Your task to perform on an android device: Open internet settings Image 0: 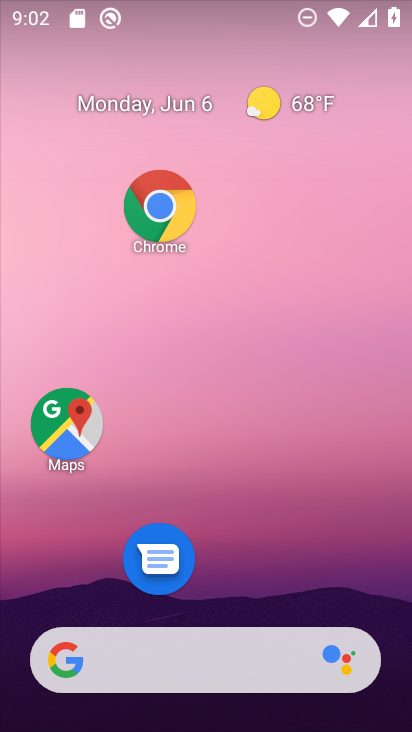
Step 0: drag from (260, 670) to (282, 335)
Your task to perform on an android device: Open internet settings Image 1: 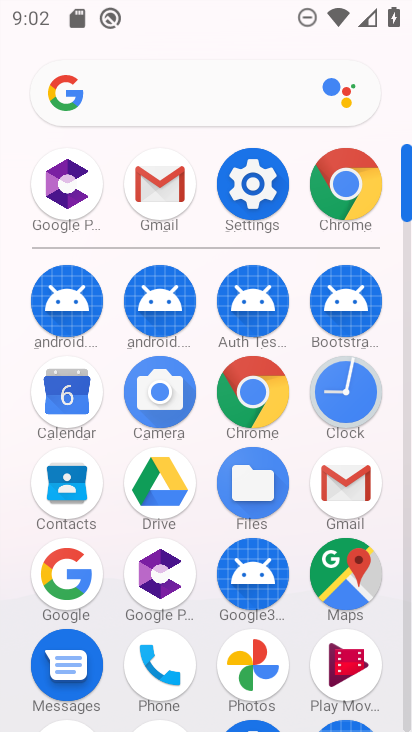
Step 1: click (254, 182)
Your task to perform on an android device: Open internet settings Image 2: 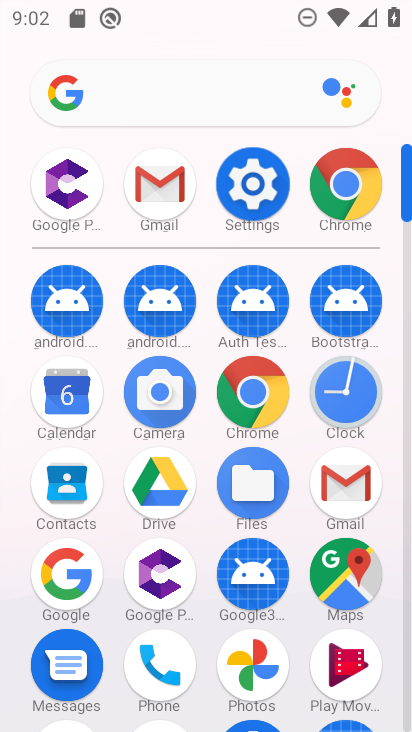
Step 2: click (254, 182)
Your task to perform on an android device: Open internet settings Image 3: 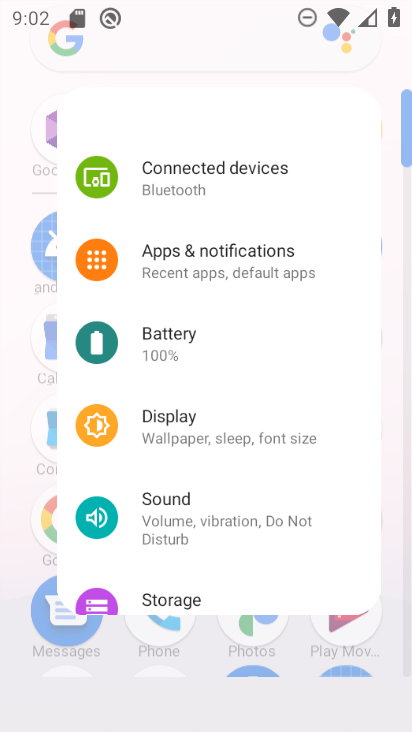
Step 3: click (229, 182)
Your task to perform on an android device: Open internet settings Image 4: 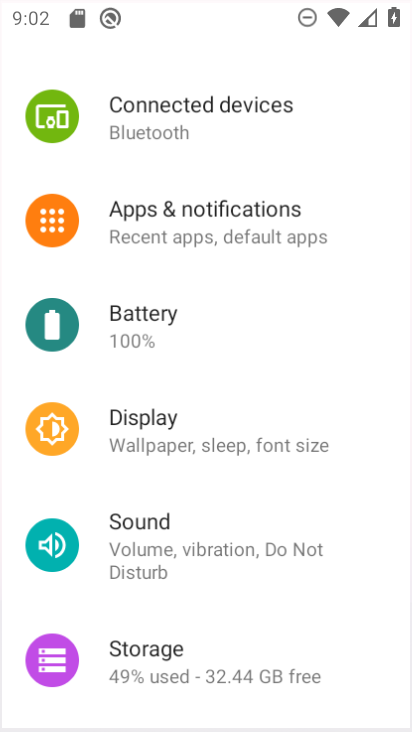
Step 4: click (229, 182)
Your task to perform on an android device: Open internet settings Image 5: 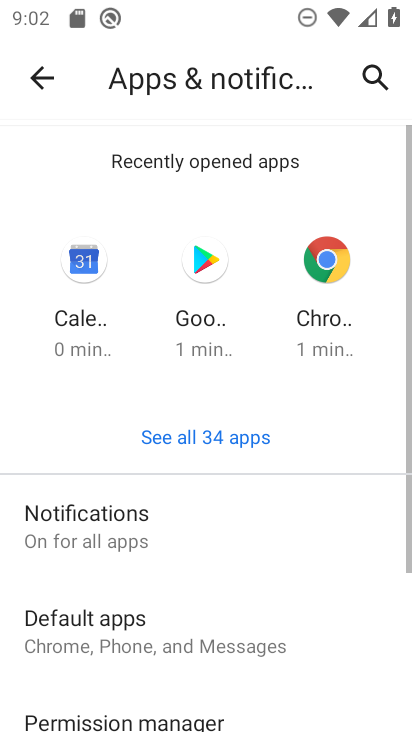
Step 5: click (42, 75)
Your task to perform on an android device: Open internet settings Image 6: 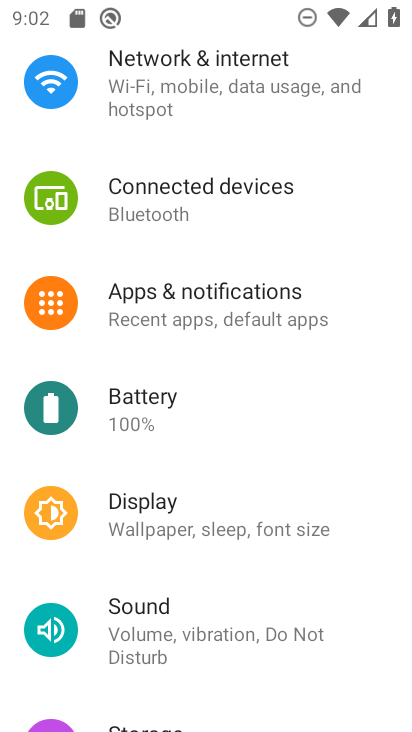
Step 6: drag from (211, 203) to (204, 511)
Your task to perform on an android device: Open internet settings Image 7: 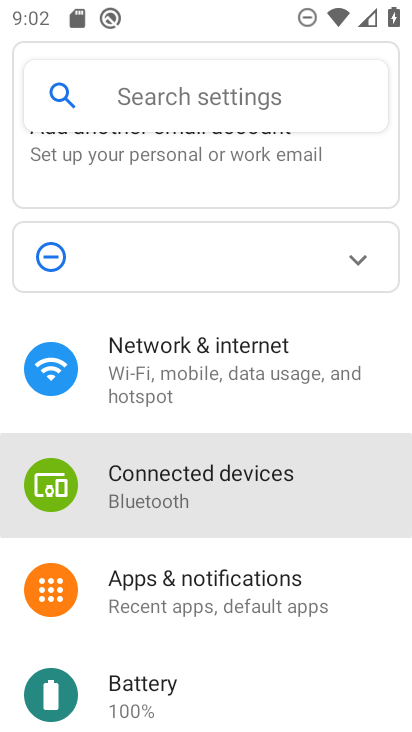
Step 7: drag from (181, 138) to (158, 425)
Your task to perform on an android device: Open internet settings Image 8: 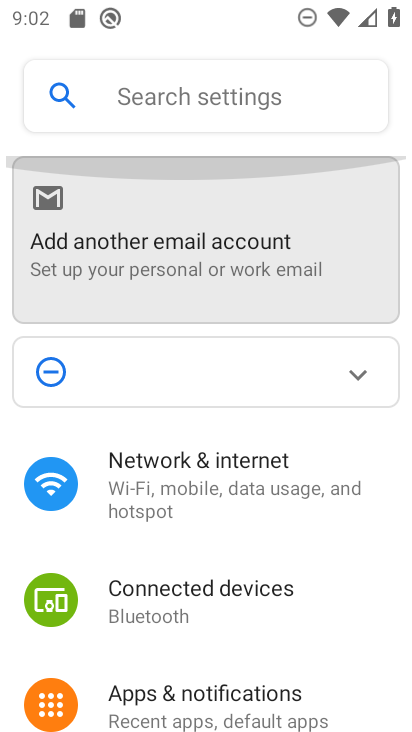
Step 8: drag from (207, 174) to (220, 483)
Your task to perform on an android device: Open internet settings Image 9: 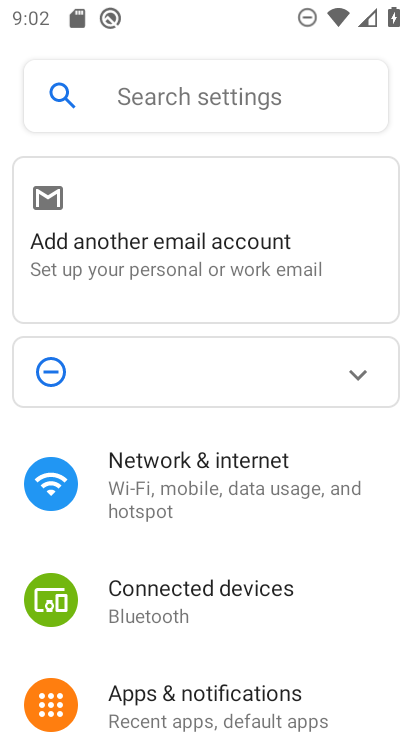
Step 9: click (193, 474)
Your task to perform on an android device: Open internet settings Image 10: 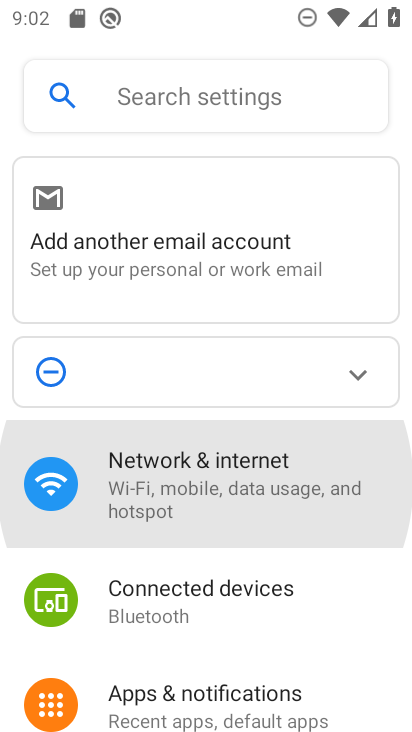
Step 10: click (193, 474)
Your task to perform on an android device: Open internet settings Image 11: 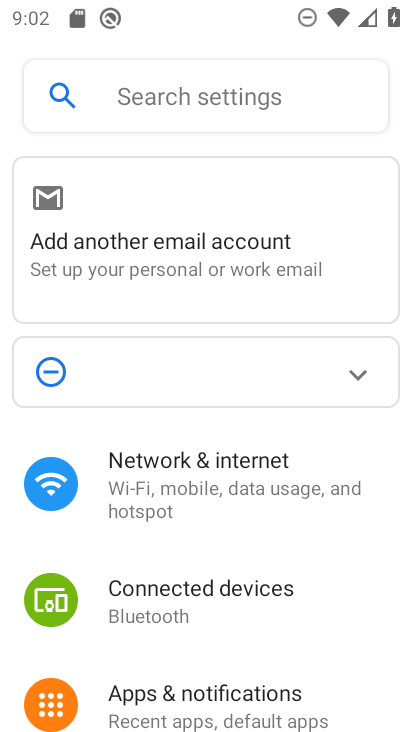
Step 11: click (192, 474)
Your task to perform on an android device: Open internet settings Image 12: 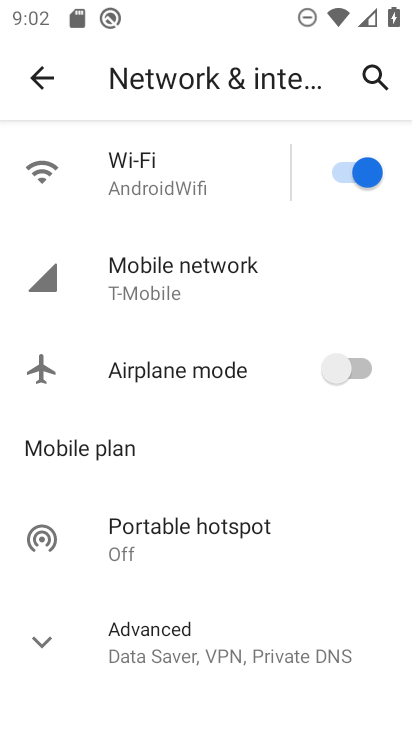
Step 12: task complete